Your task to perform on an android device: Open Android settings Image 0: 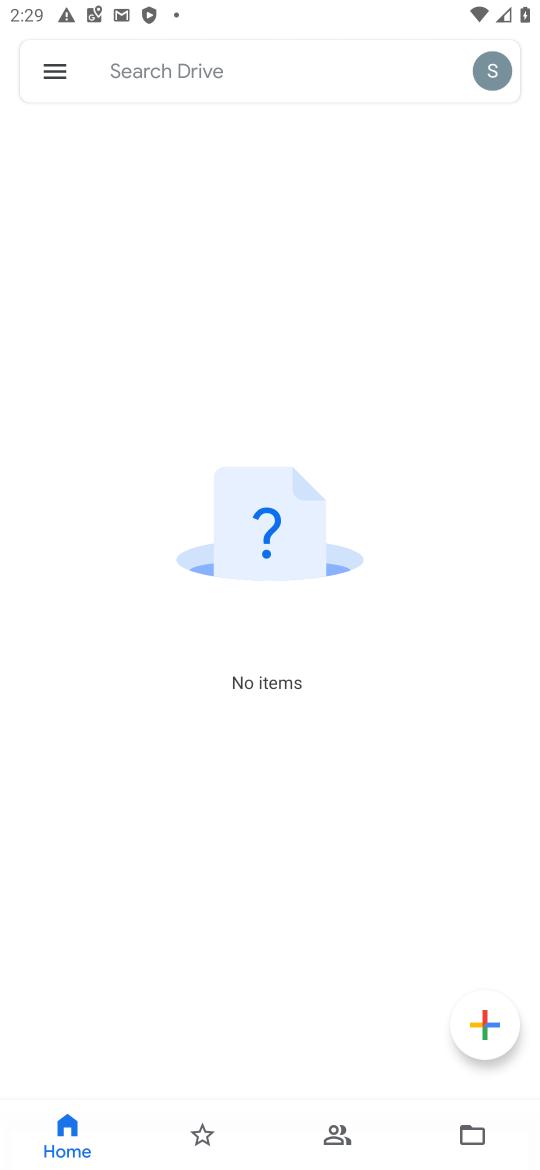
Step 0: press home button
Your task to perform on an android device: Open Android settings Image 1: 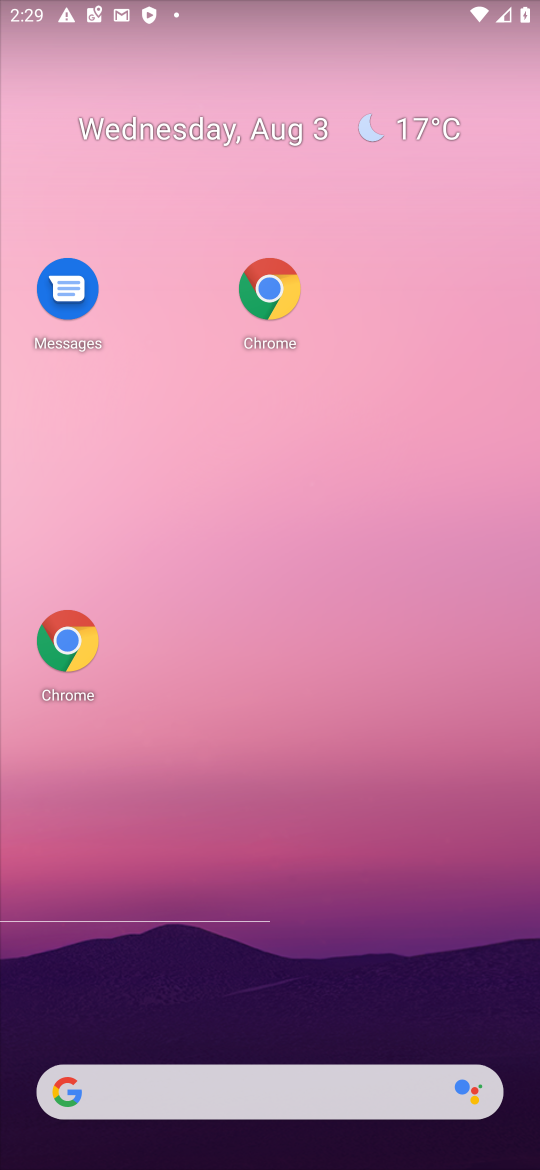
Step 1: drag from (378, 916) to (435, 42)
Your task to perform on an android device: Open Android settings Image 2: 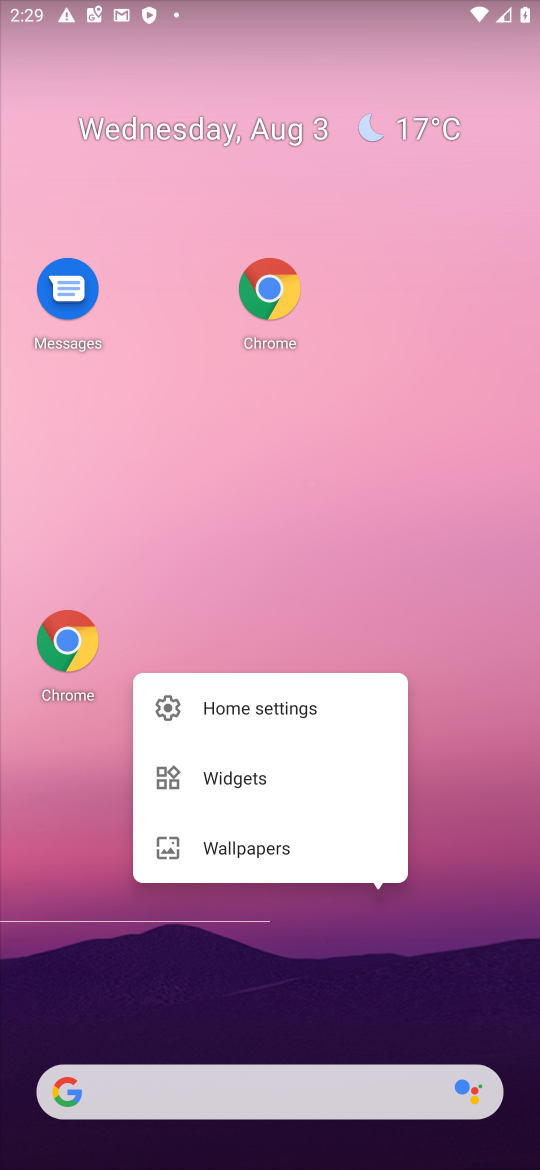
Step 2: click (430, 405)
Your task to perform on an android device: Open Android settings Image 3: 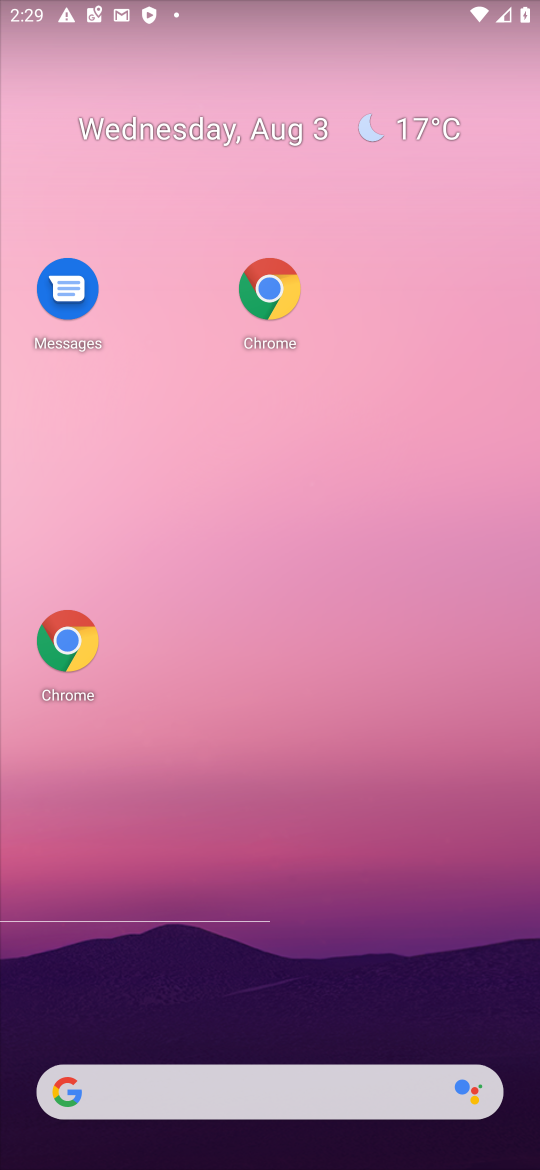
Step 3: drag from (370, 916) to (358, 159)
Your task to perform on an android device: Open Android settings Image 4: 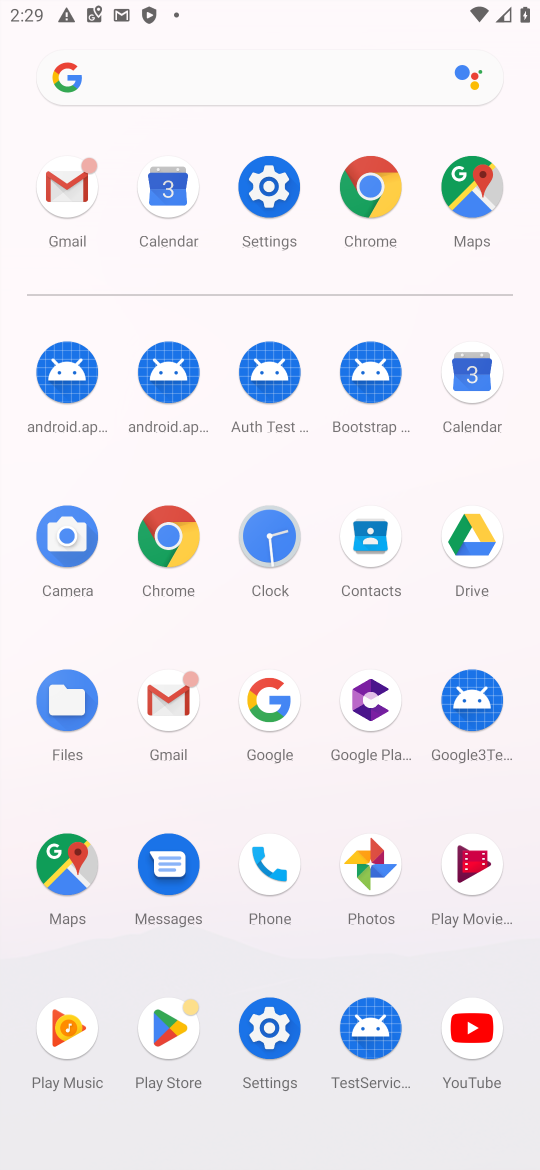
Step 4: click (270, 1071)
Your task to perform on an android device: Open Android settings Image 5: 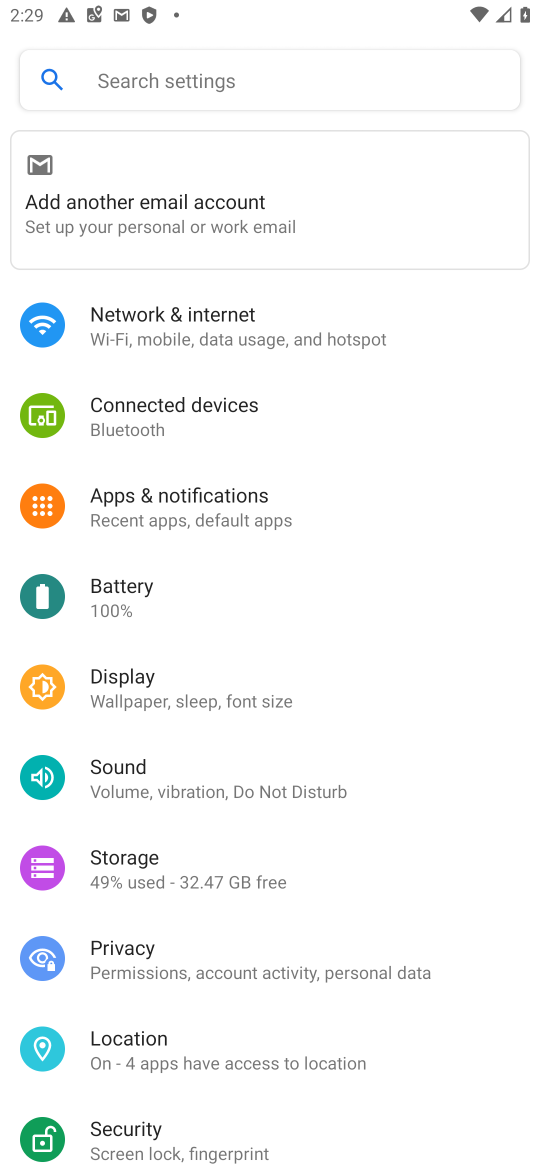
Step 5: task complete